Your task to perform on an android device: toggle location history Image 0: 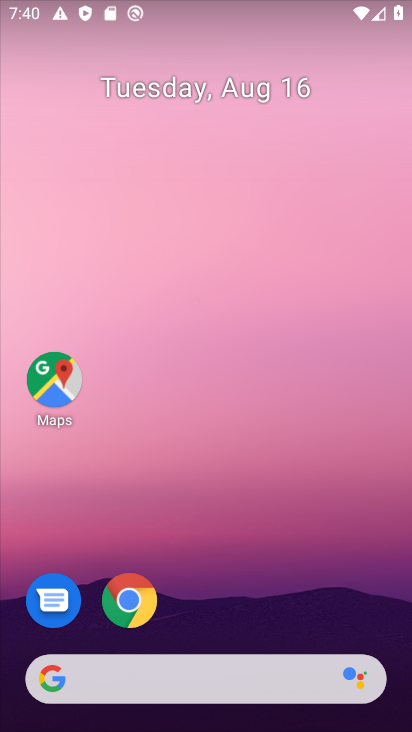
Step 0: drag from (251, 665) to (207, 51)
Your task to perform on an android device: toggle location history Image 1: 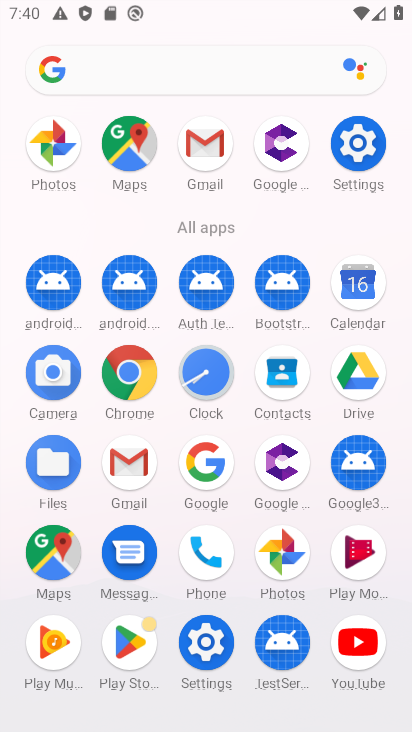
Step 1: click (348, 153)
Your task to perform on an android device: toggle location history Image 2: 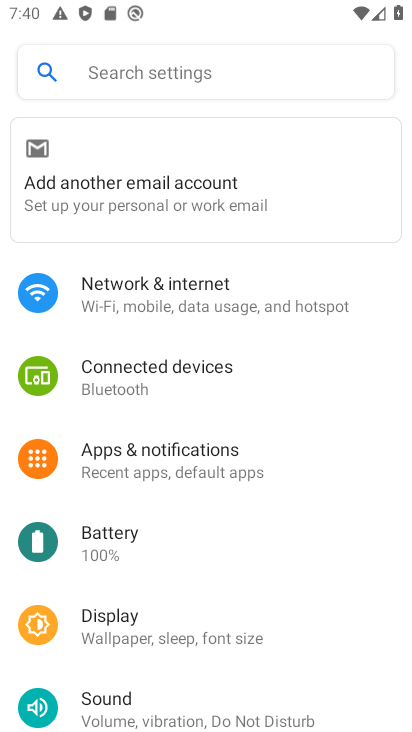
Step 2: drag from (176, 607) to (224, 255)
Your task to perform on an android device: toggle location history Image 3: 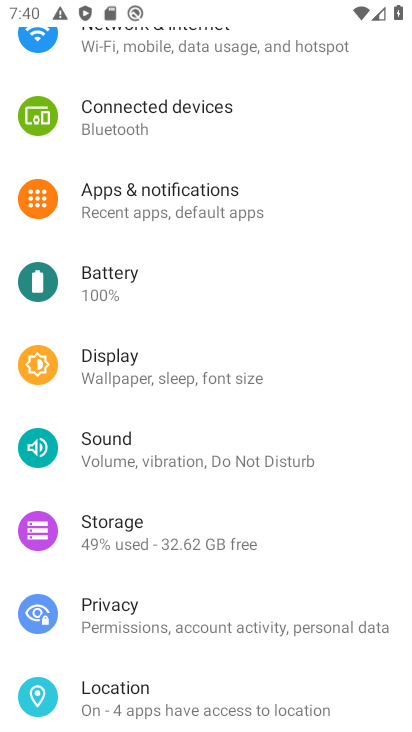
Step 3: drag from (142, 665) to (148, 239)
Your task to perform on an android device: toggle location history Image 4: 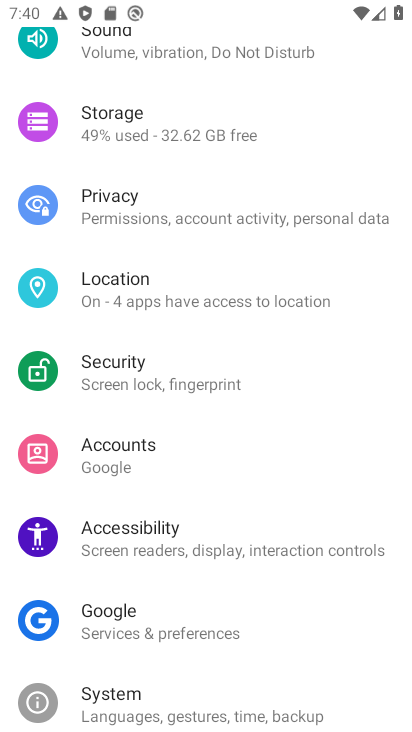
Step 4: click (106, 294)
Your task to perform on an android device: toggle location history Image 5: 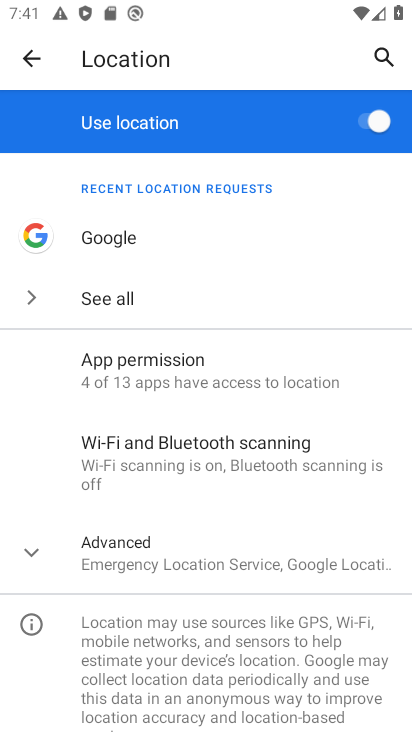
Step 5: click (143, 567)
Your task to perform on an android device: toggle location history Image 6: 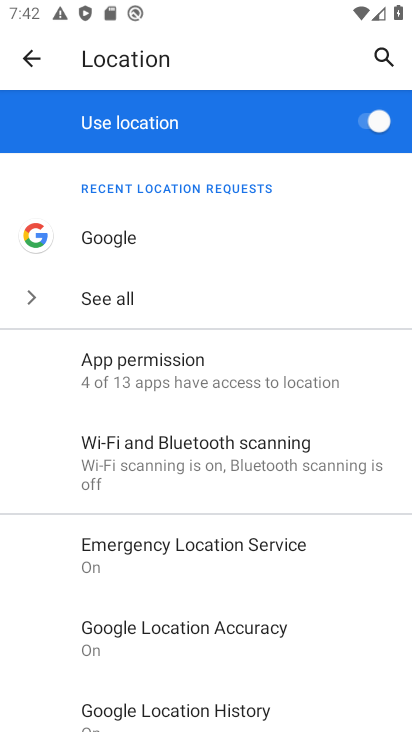
Step 6: drag from (159, 604) to (169, 438)
Your task to perform on an android device: toggle location history Image 7: 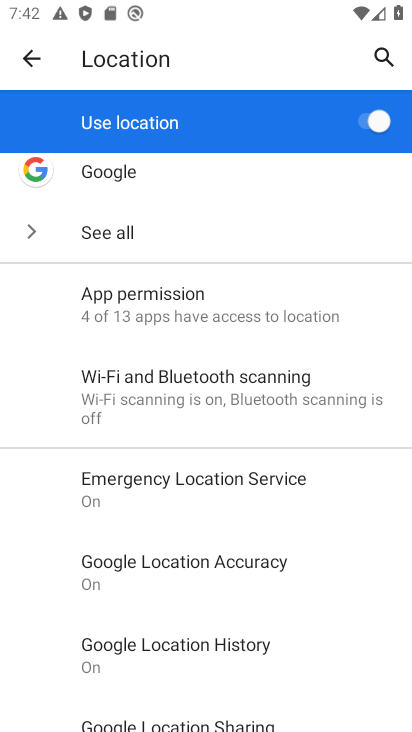
Step 7: click (116, 634)
Your task to perform on an android device: toggle location history Image 8: 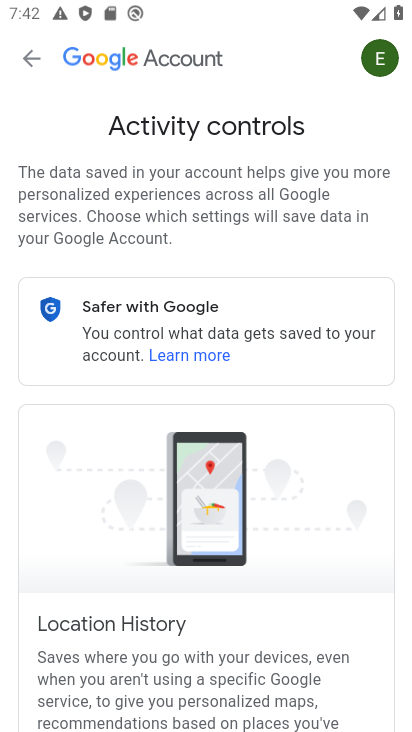
Step 8: drag from (233, 494) to (322, 142)
Your task to perform on an android device: toggle location history Image 9: 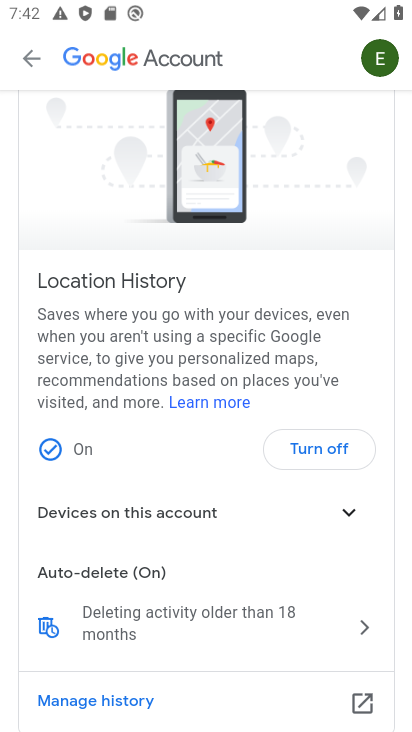
Step 9: click (307, 448)
Your task to perform on an android device: toggle location history Image 10: 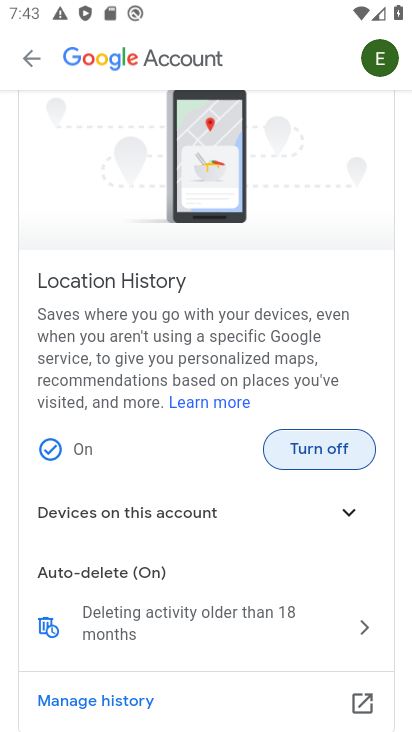
Step 10: click (307, 446)
Your task to perform on an android device: toggle location history Image 11: 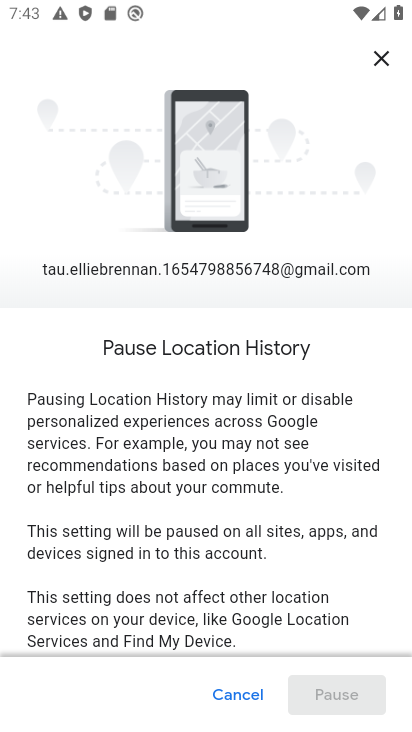
Step 11: drag from (282, 540) to (333, 227)
Your task to perform on an android device: toggle location history Image 12: 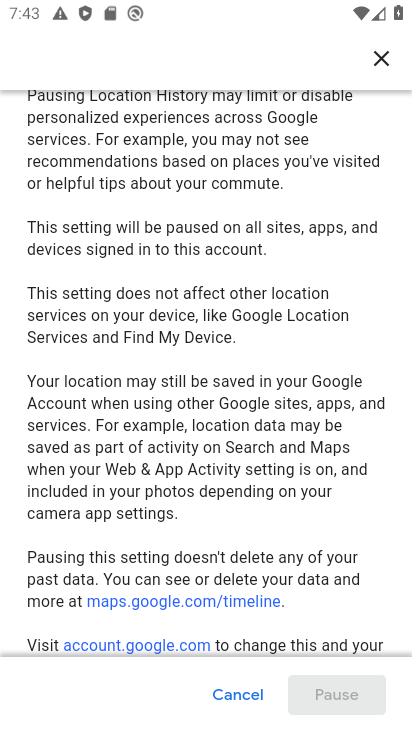
Step 12: drag from (217, 587) to (335, 215)
Your task to perform on an android device: toggle location history Image 13: 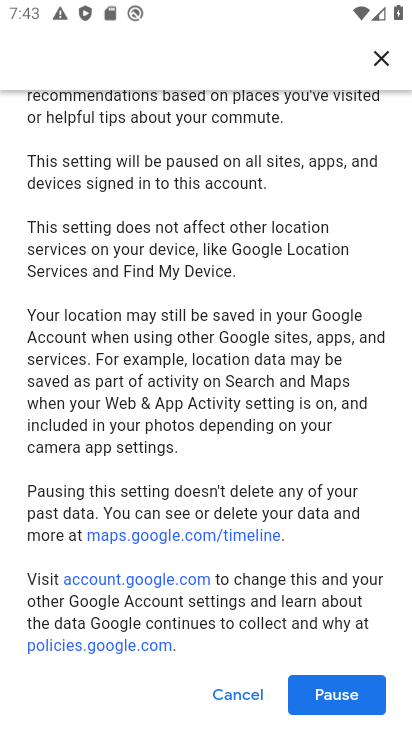
Step 13: click (342, 699)
Your task to perform on an android device: toggle location history Image 14: 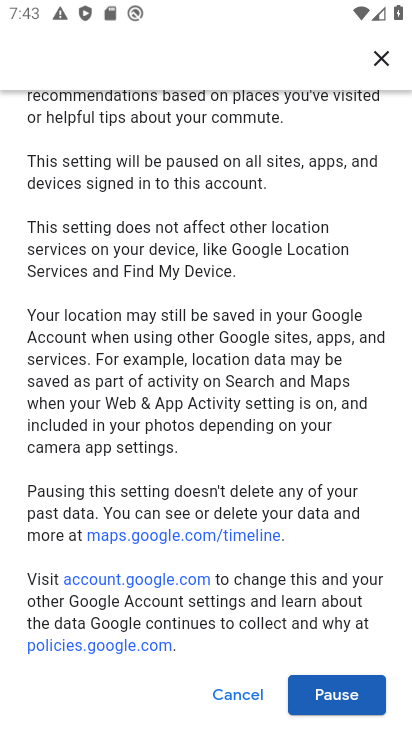
Step 14: click (340, 696)
Your task to perform on an android device: toggle location history Image 15: 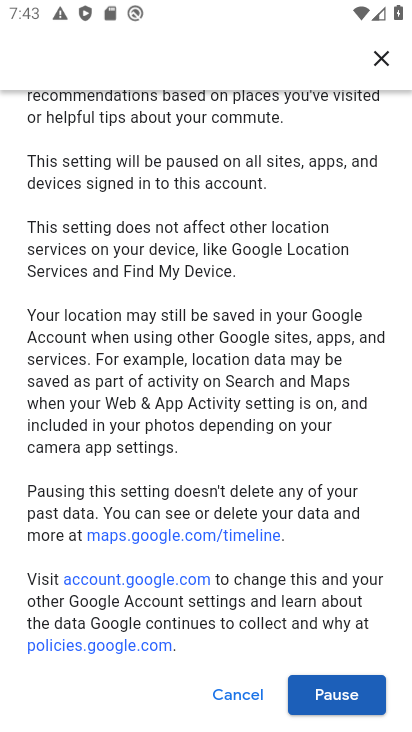
Step 15: click (340, 696)
Your task to perform on an android device: toggle location history Image 16: 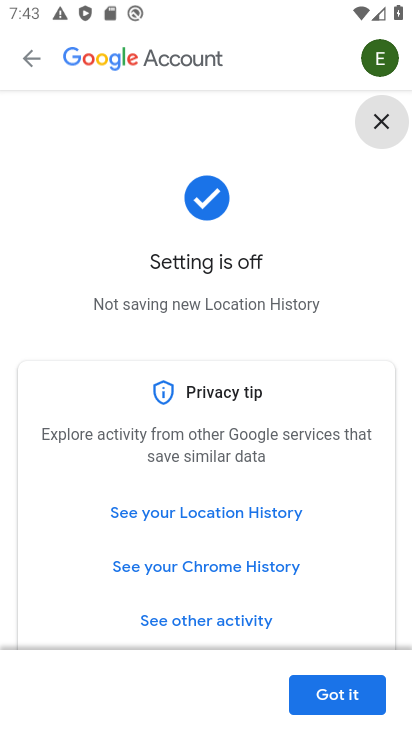
Step 16: click (340, 696)
Your task to perform on an android device: toggle location history Image 17: 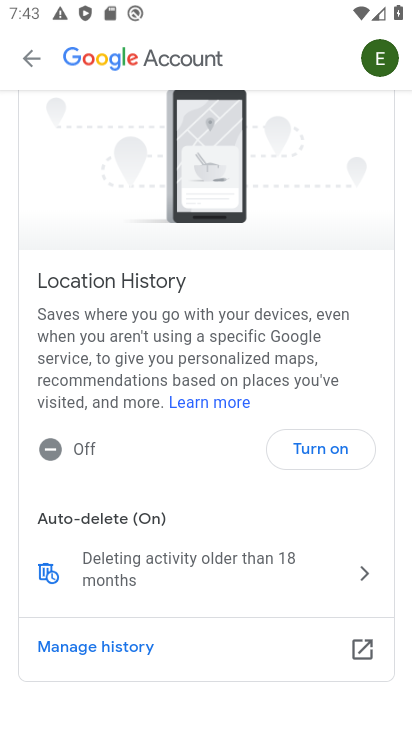
Step 17: task complete